Your task to perform on an android device: turn off airplane mode Image 0: 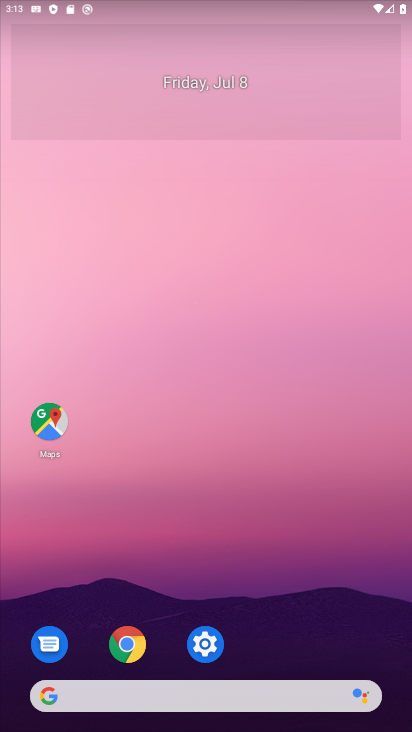
Step 0: drag from (13, 696) to (208, 122)
Your task to perform on an android device: turn off airplane mode Image 1: 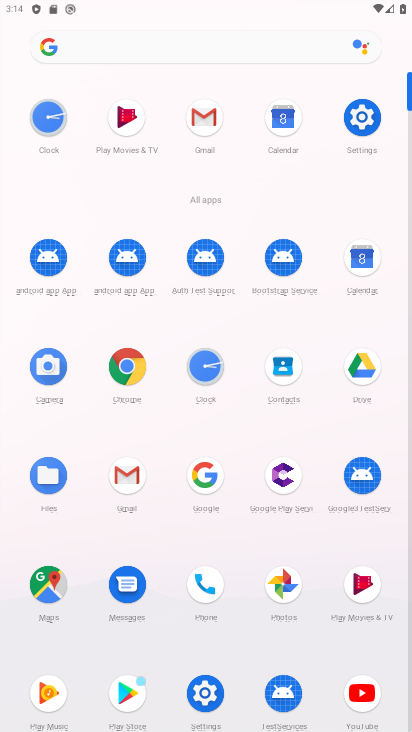
Step 1: click (187, 688)
Your task to perform on an android device: turn off airplane mode Image 2: 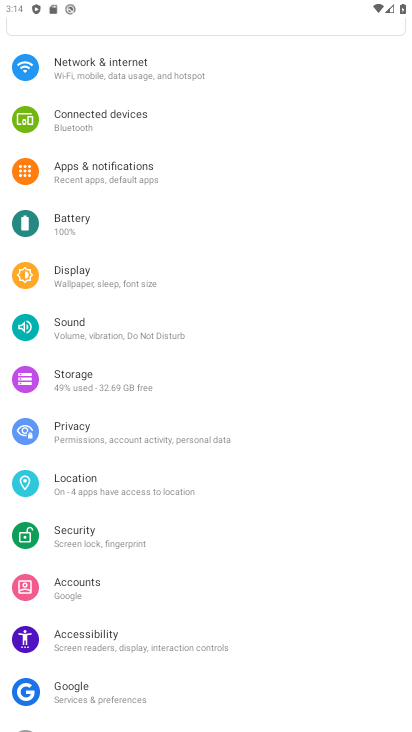
Step 2: click (90, 81)
Your task to perform on an android device: turn off airplane mode Image 3: 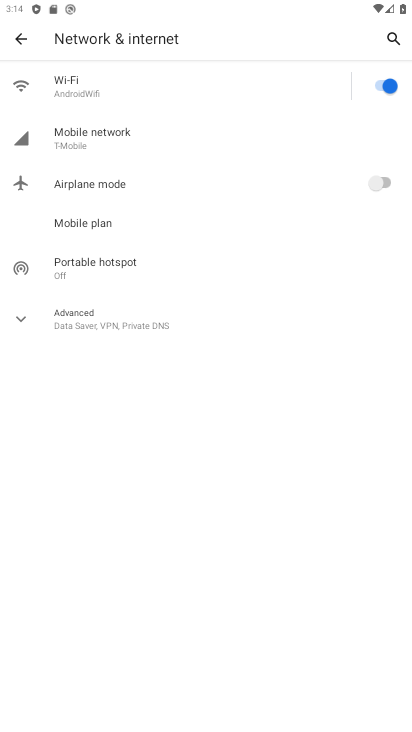
Step 3: click (367, 181)
Your task to perform on an android device: turn off airplane mode Image 4: 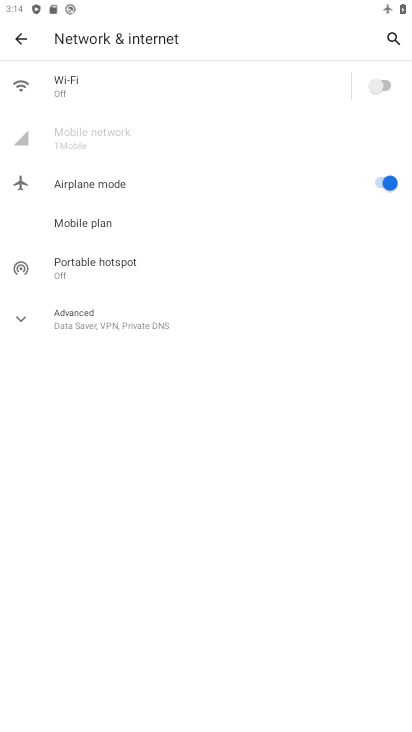
Step 4: click (388, 186)
Your task to perform on an android device: turn off airplane mode Image 5: 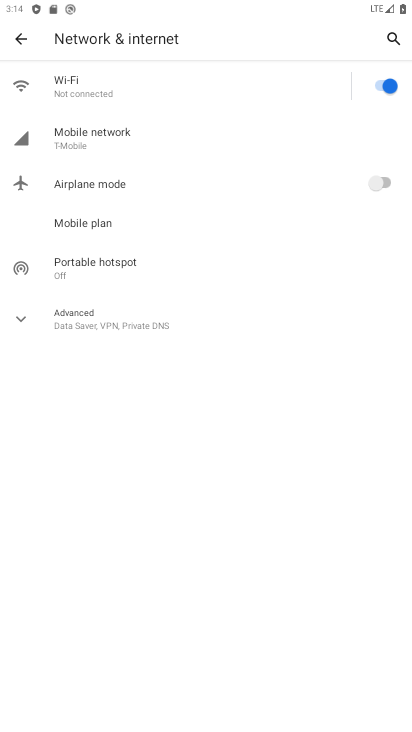
Step 5: task complete